Your task to perform on an android device: check android version Image 0: 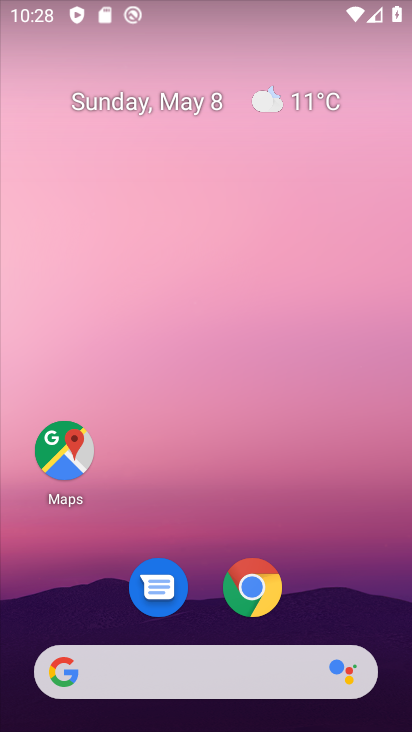
Step 0: drag from (188, 661) to (186, 234)
Your task to perform on an android device: check android version Image 1: 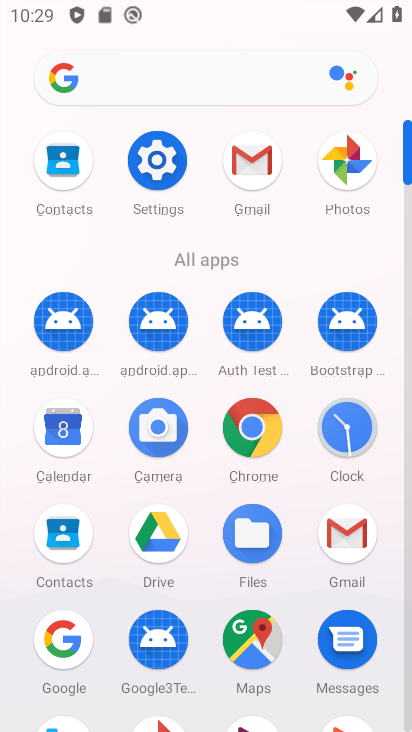
Step 1: click (162, 164)
Your task to perform on an android device: check android version Image 2: 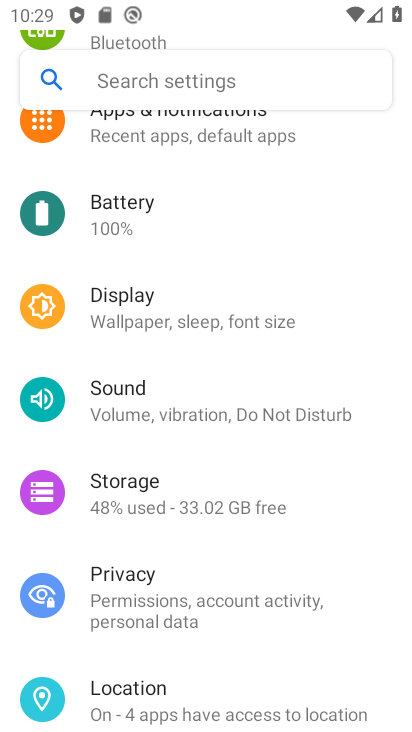
Step 2: drag from (177, 638) to (213, 16)
Your task to perform on an android device: check android version Image 3: 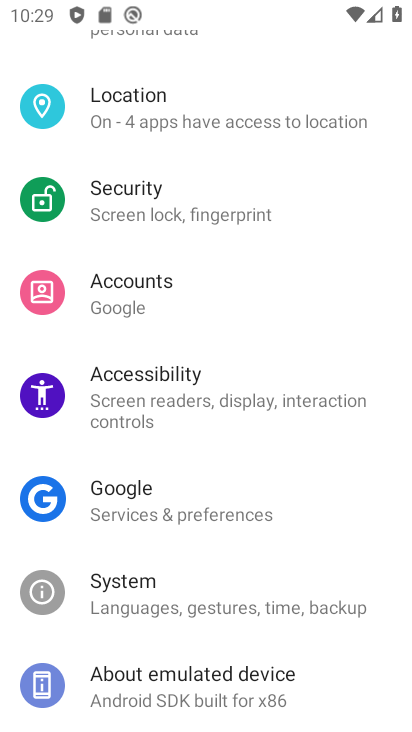
Step 3: click (208, 702)
Your task to perform on an android device: check android version Image 4: 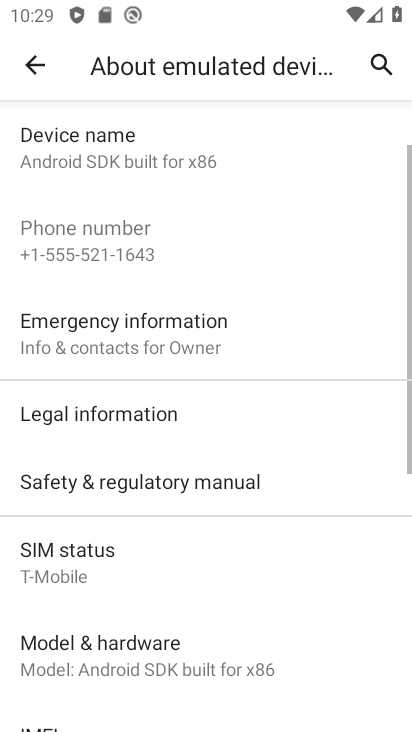
Step 4: drag from (209, 638) to (207, 146)
Your task to perform on an android device: check android version Image 5: 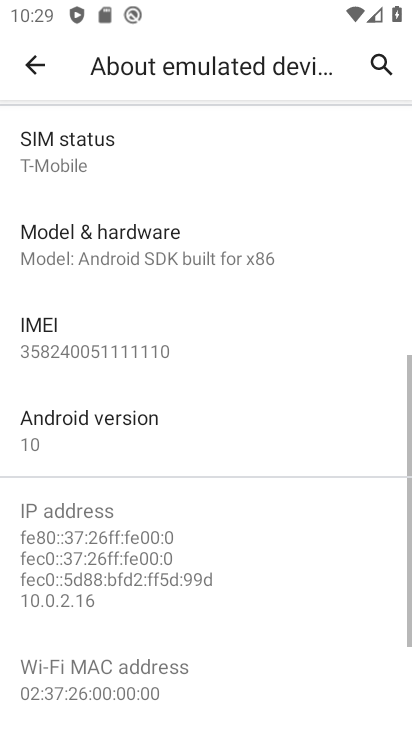
Step 5: click (133, 446)
Your task to perform on an android device: check android version Image 6: 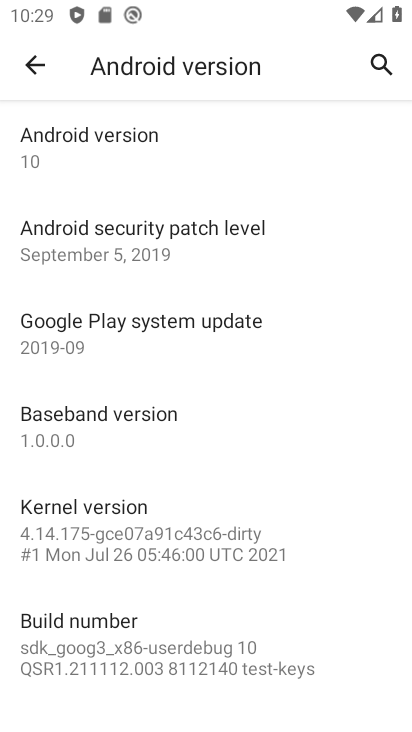
Step 6: task complete